Your task to perform on an android device: Go to battery settings Image 0: 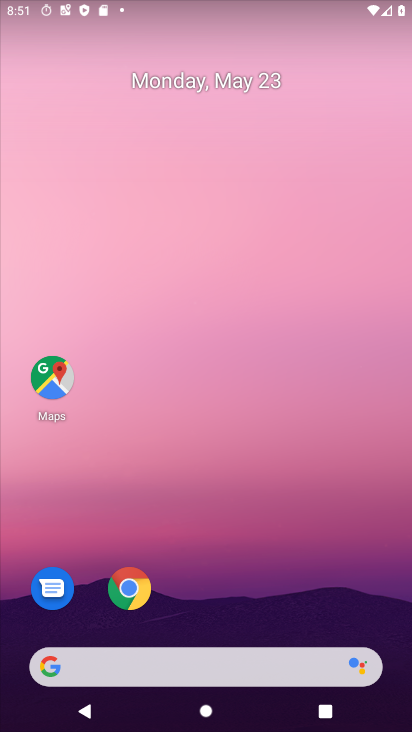
Step 0: drag from (387, 704) to (344, 110)
Your task to perform on an android device: Go to battery settings Image 1: 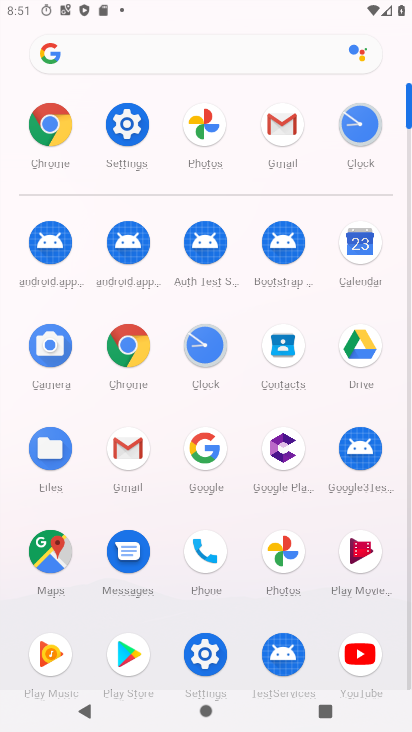
Step 1: click (127, 127)
Your task to perform on an android device: Go to battery settings Image 2: 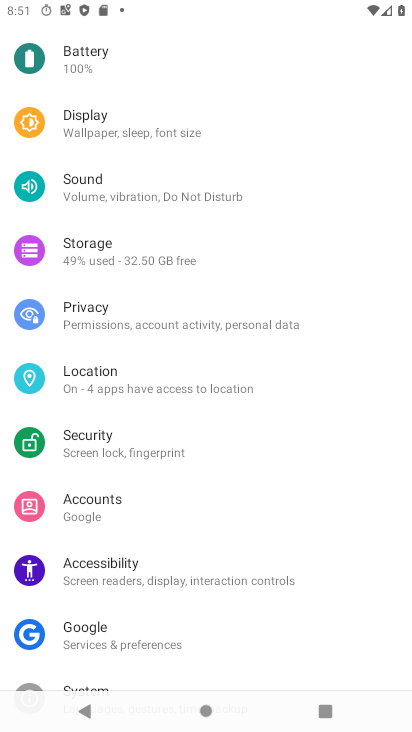
Step 2: click (74, 52)
Your task to perform on an android device: Go to battery settings Image 3: 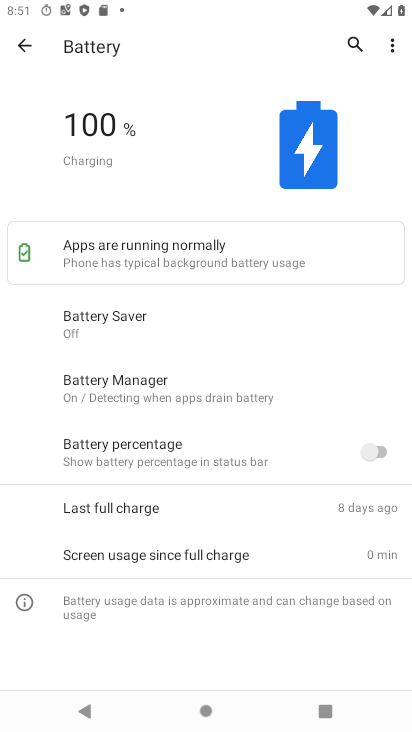
Step 3: task complete